Your task to perform on an android device: Go to CNN.com Image 0: 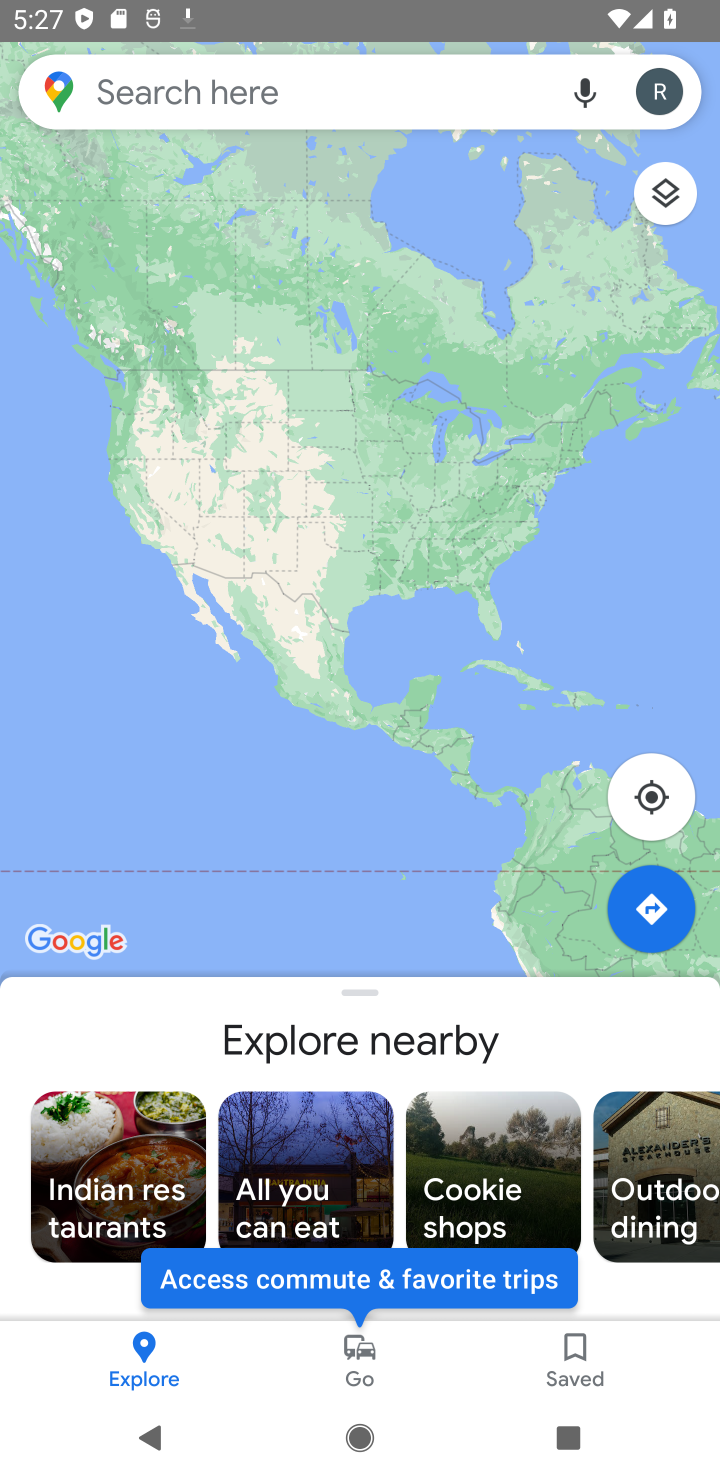
Step 0: press home button
Your task to perform on an android device: Go to CNN.com Image 1: 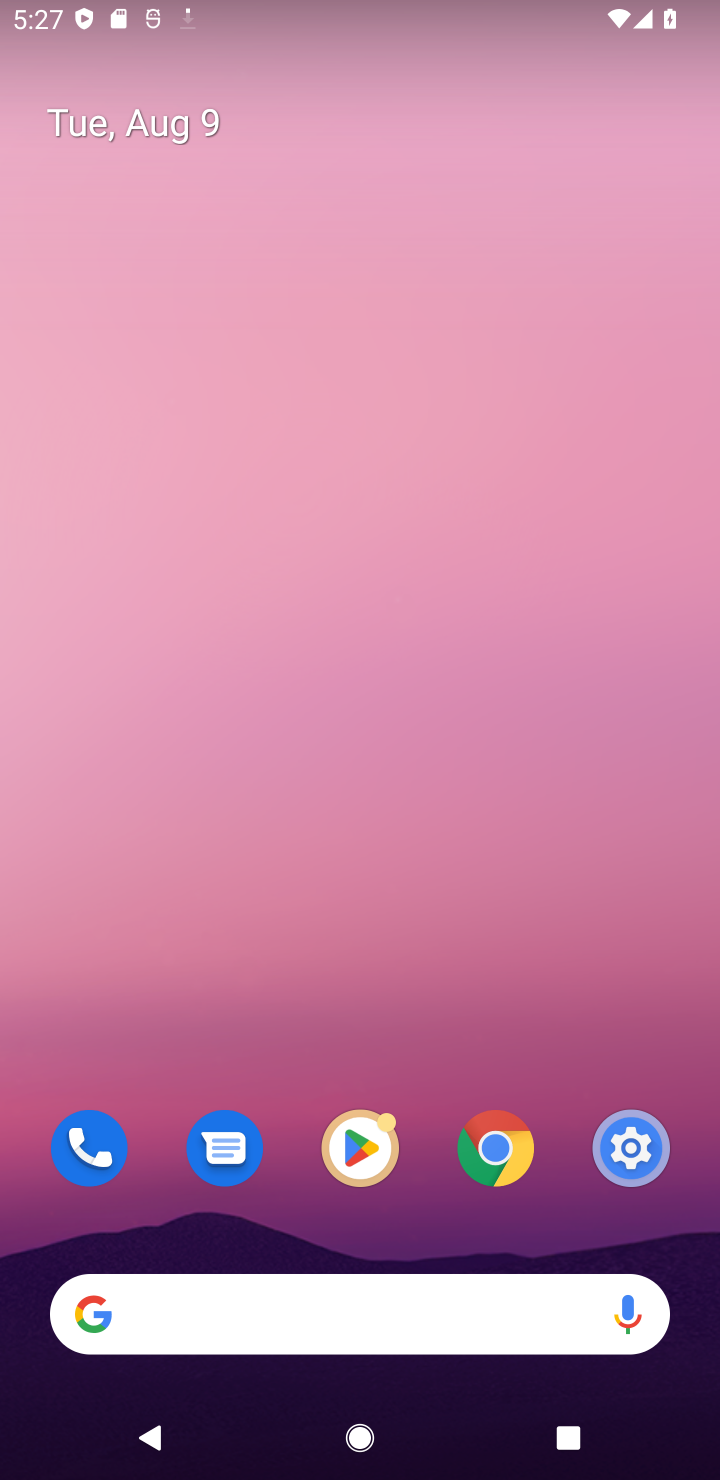
Step 1: click (509, 1163)
Your task to perform on an android device: Go to CNN.com Image 2: 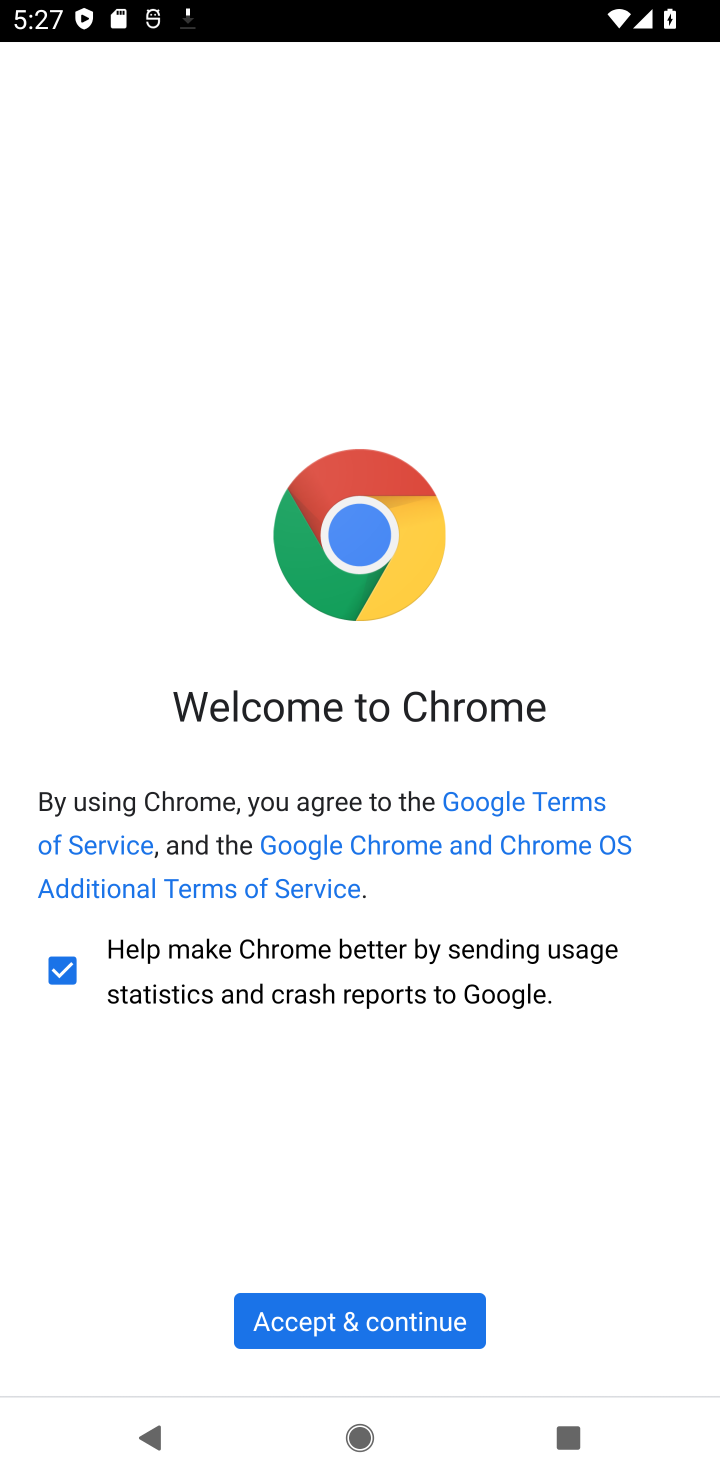
Step 2: click (399, 1326)
Your task to perform on an android device: Go to CNN.com Image 3: 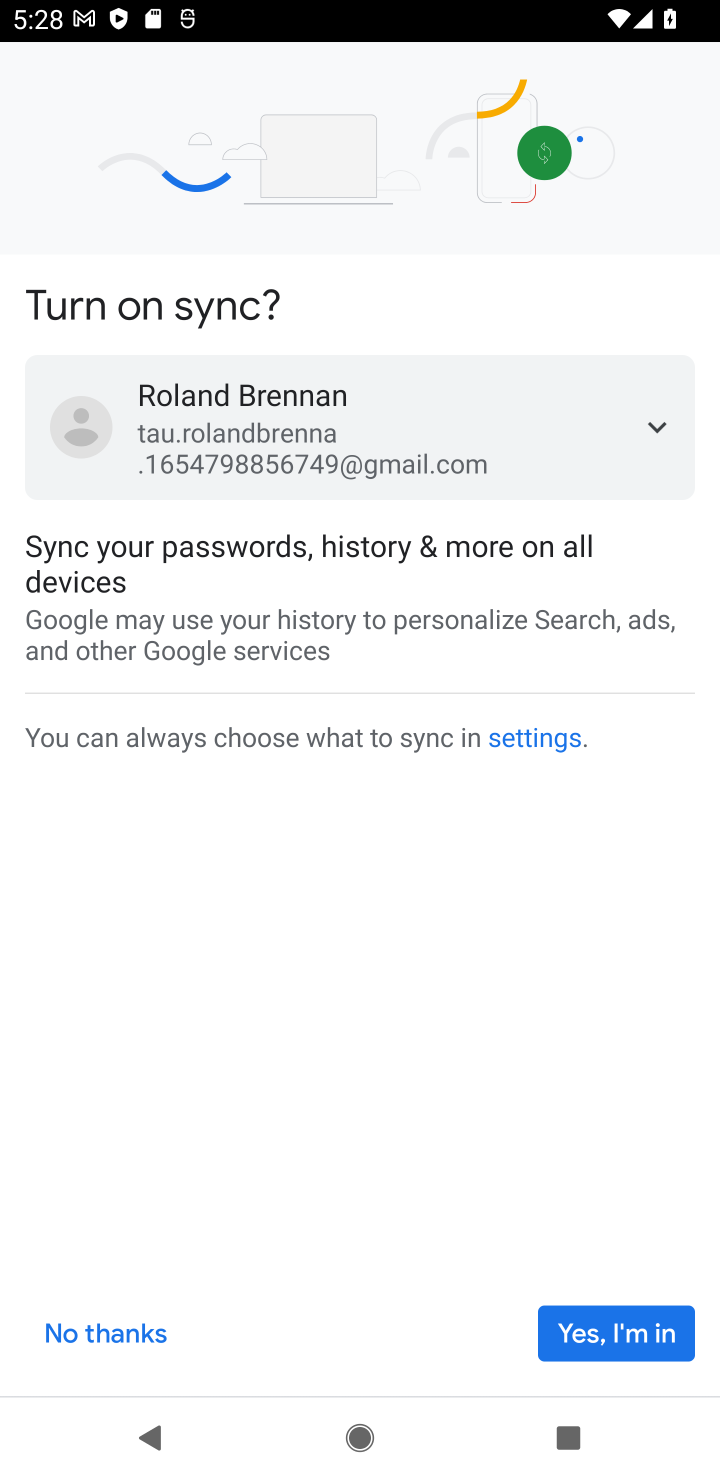
Step 3: click (644, 1328)
Your task to perform on an android device: Go to CNN.com Image 4: 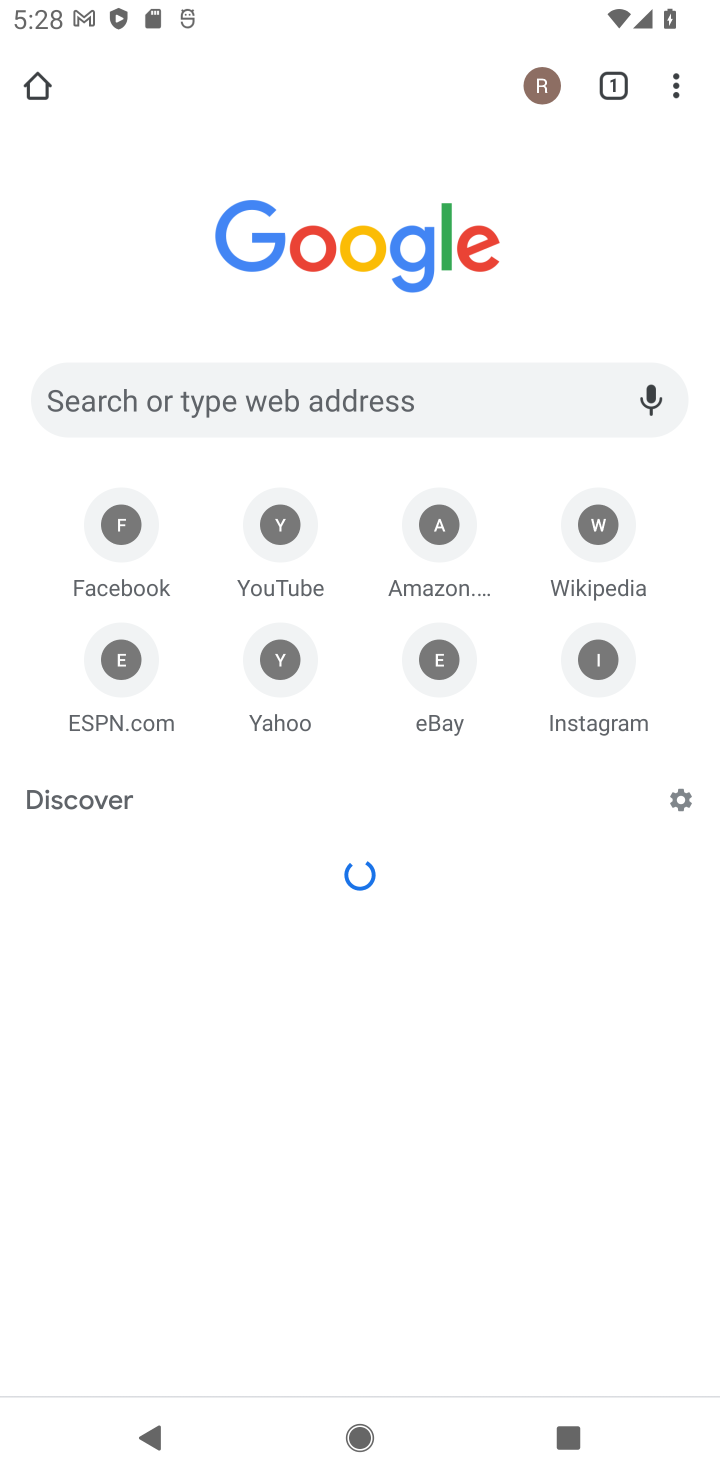
Step 4: click (303, 400)
Your task to perform on an android device: Go to CNN.com Image 5: 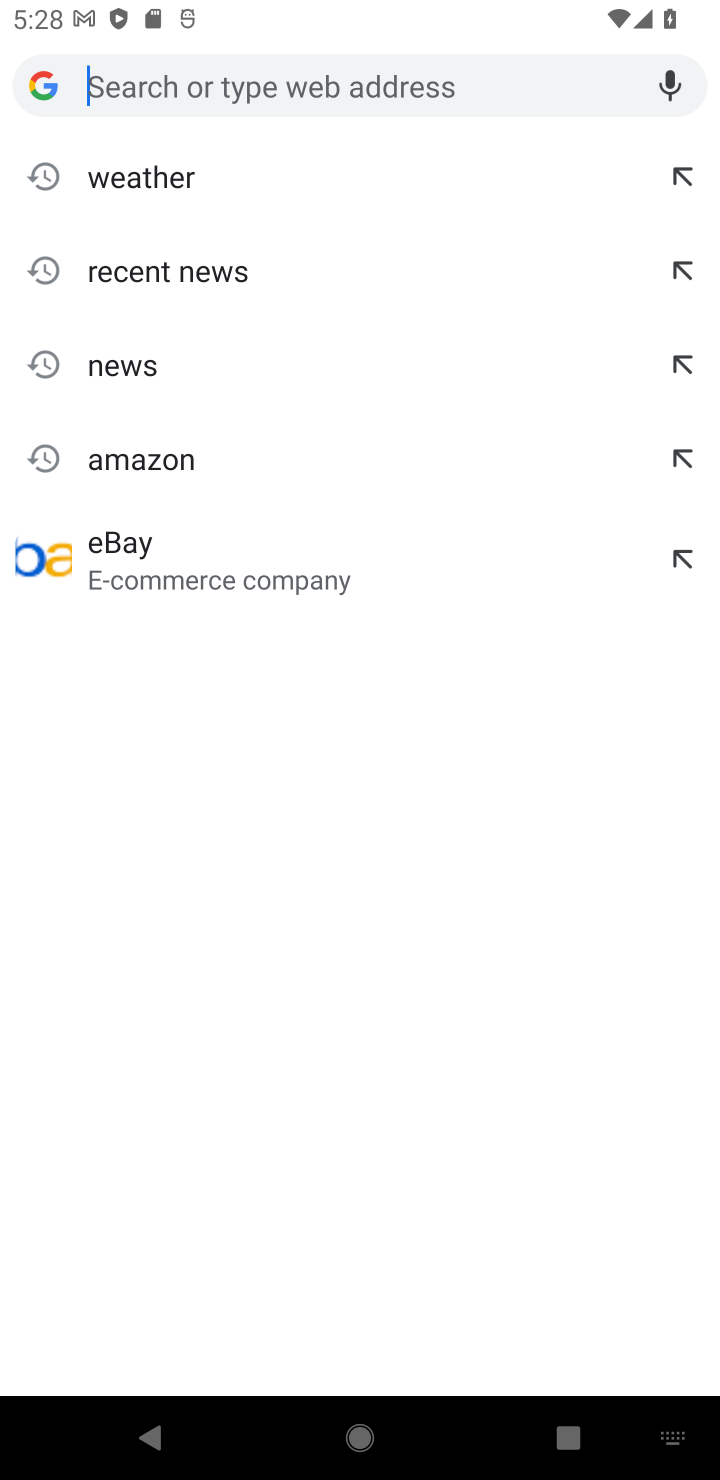
Step 5: type "CNN.com"
Your task to perform on an android device: Go to CNN.com Image 6: 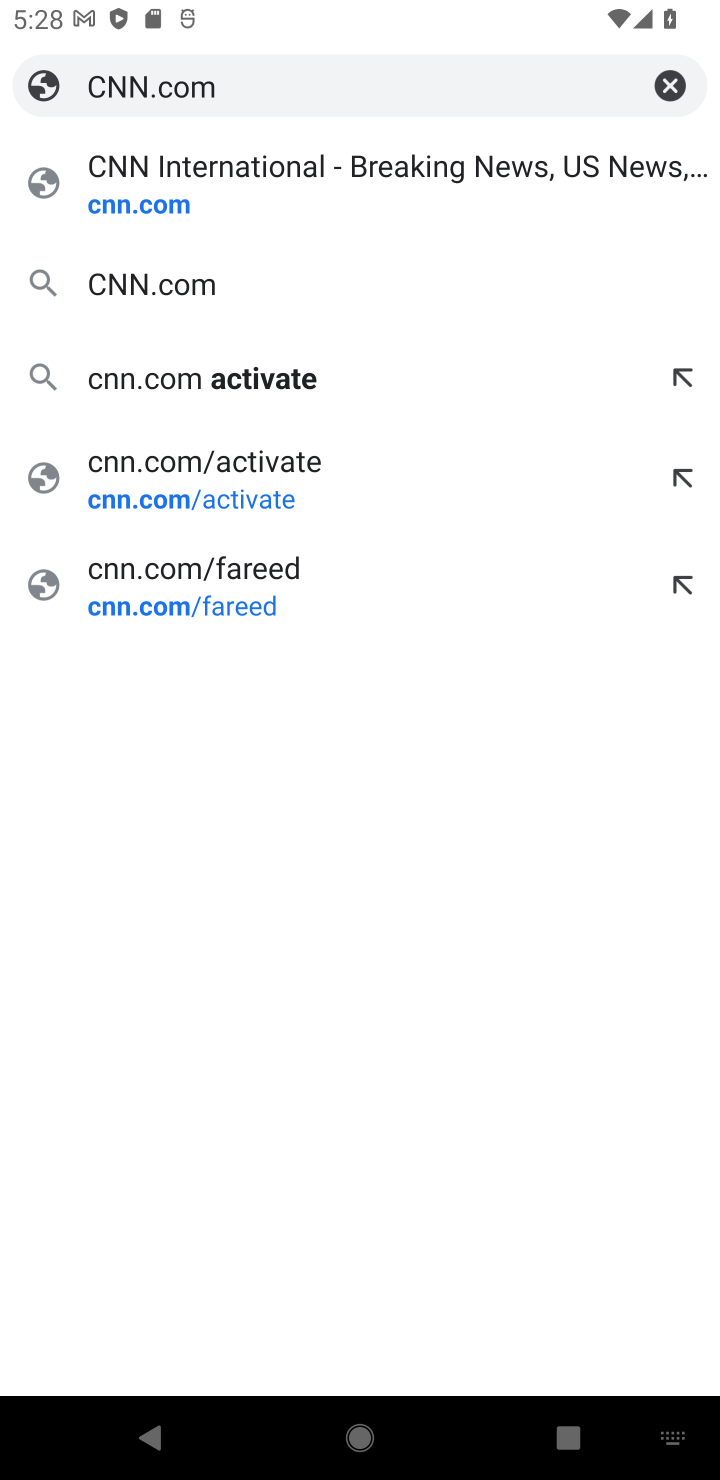
Step 6: click (166, 190)
Your task to perform on an android device: Go to CNN.com Image 7: 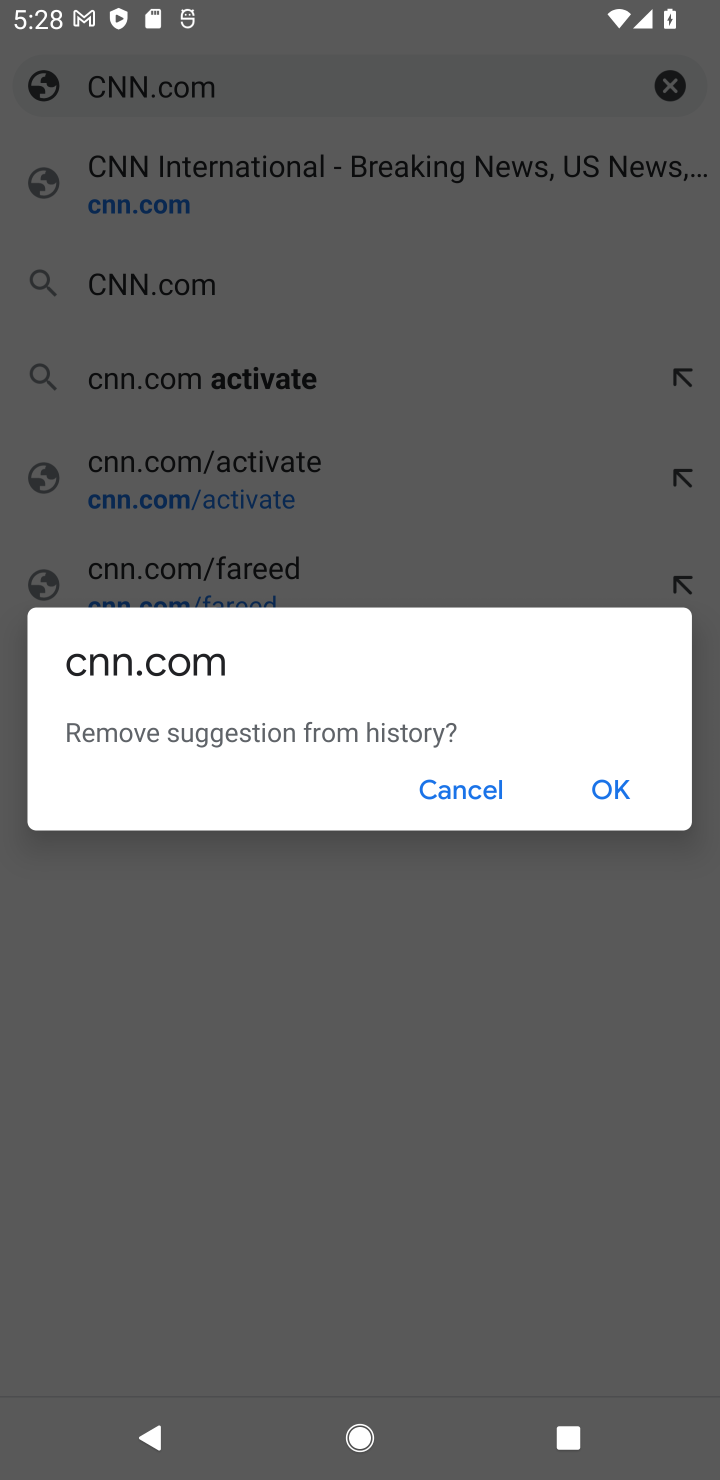
Step 7: click (451, 788)
Your task to perform on an android device: Go to CNN.com Image 8: 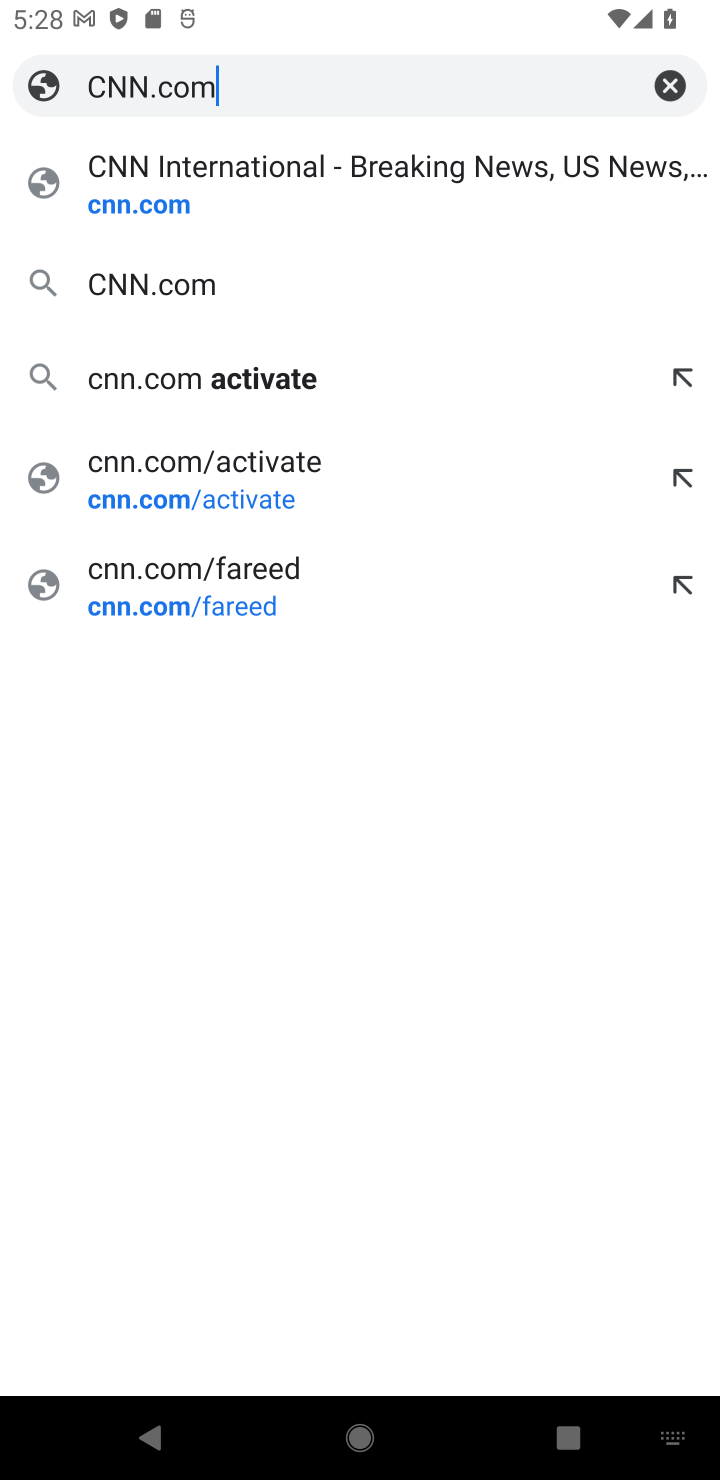
Step 8: click (164, 217)
Your task to perform on an android device: Go to CNN.com Image 9: 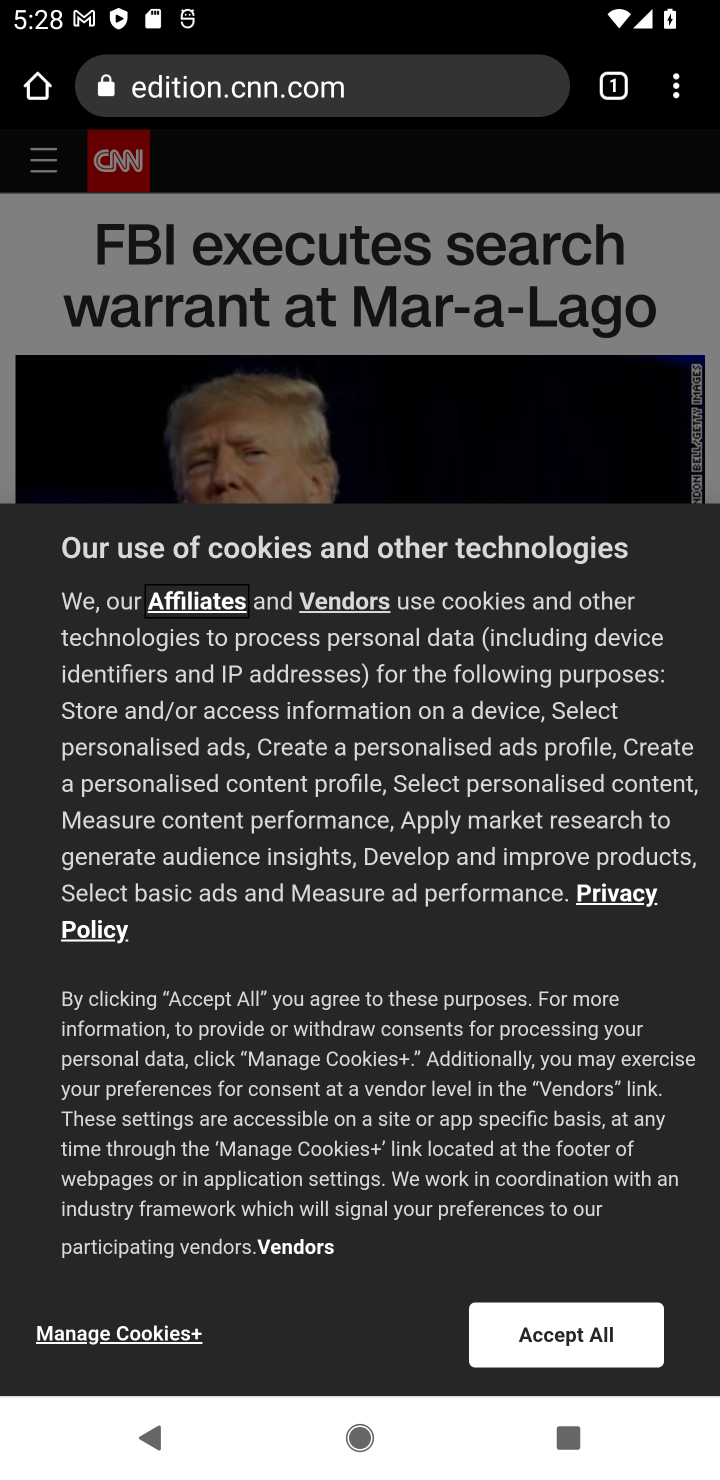
Step 9: task complete